Your task to perform on an android device: Open internet settings Image 0: 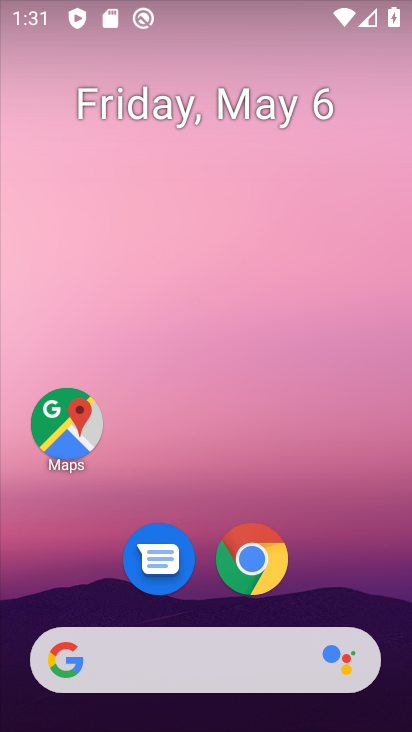
Step 0: drag from (345, 532) to (301, 0)
Your task to perform on an android device: Open internet settings Image 1: 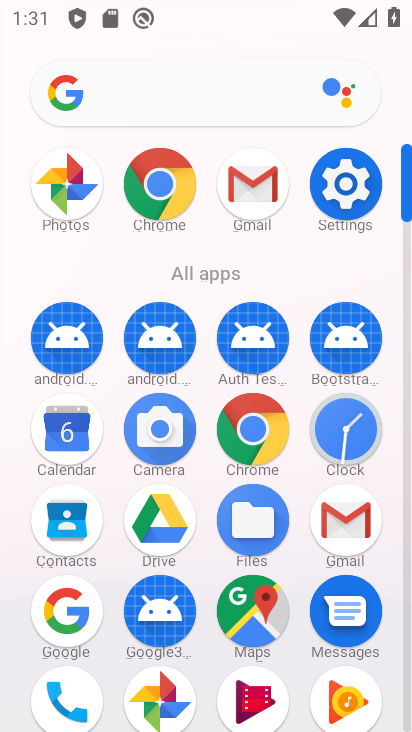
Step 1: click (337, 190)
Your task to perform on an android device: Open internet settings Image 2: 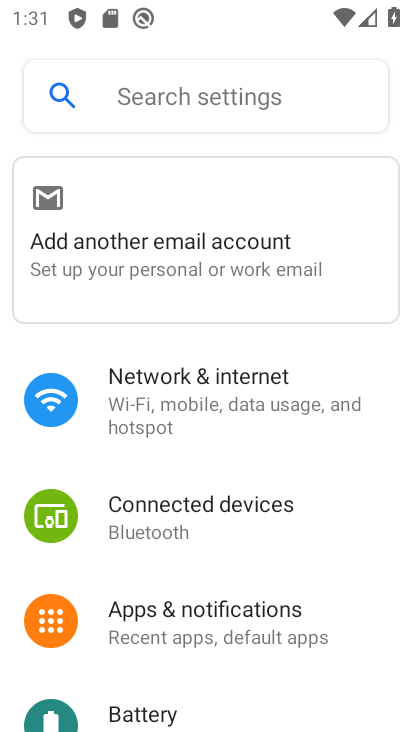
Step 2: click (181, 378)
Your task to perform on an android device: Open internet settings Image 3: 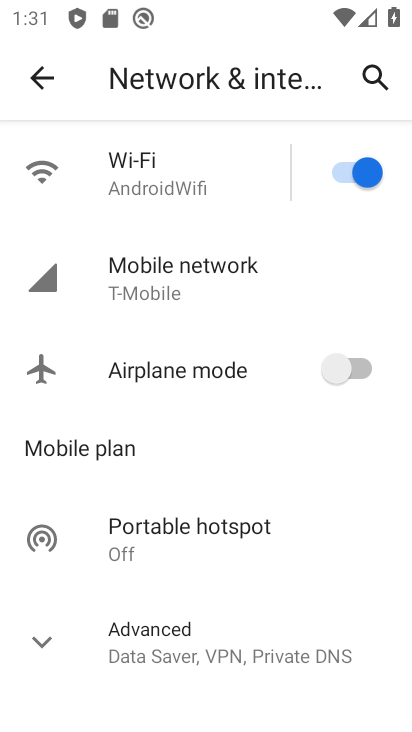
Step 3: click (216, 301)
Your task to perform on an android device: Open internet settings Image 4: 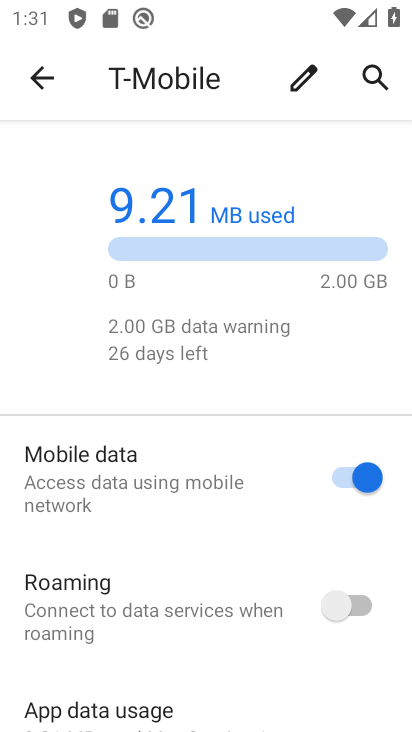
Step 4: task complete